Your task to perform on an android device: Go to battery settings Image 0: 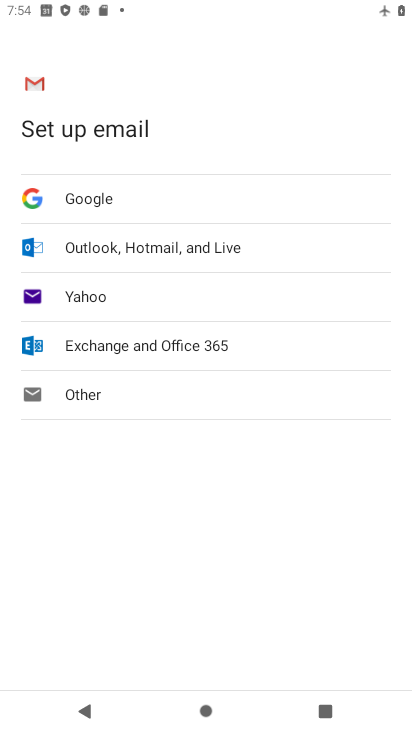
Step 0: press home button
Your task to perform on an android device: Go to battery settings Image 1: 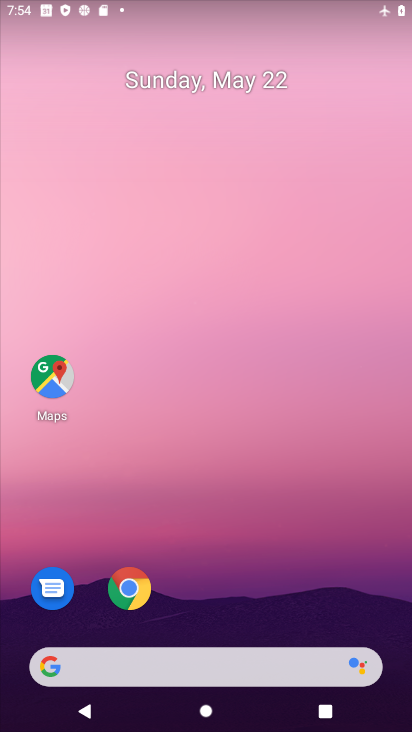
Step 1: drag from (255, 535) to (191, 98)
Your task to perform on an android device: Go to battery settings Image 2: 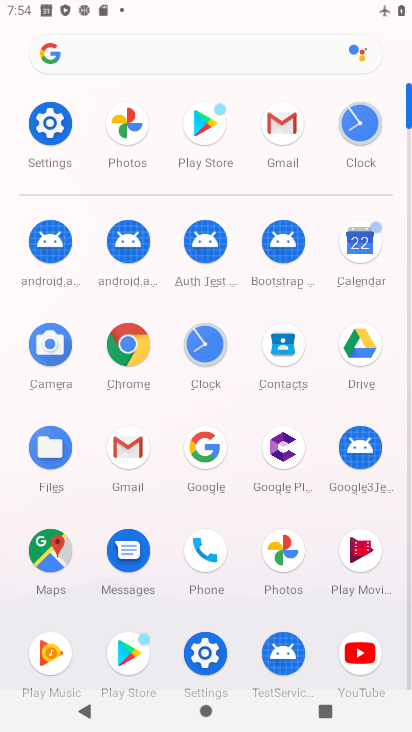
Step 2: click (44, 117)
Your task to perform on an android device: Go to battery settings Image 3: 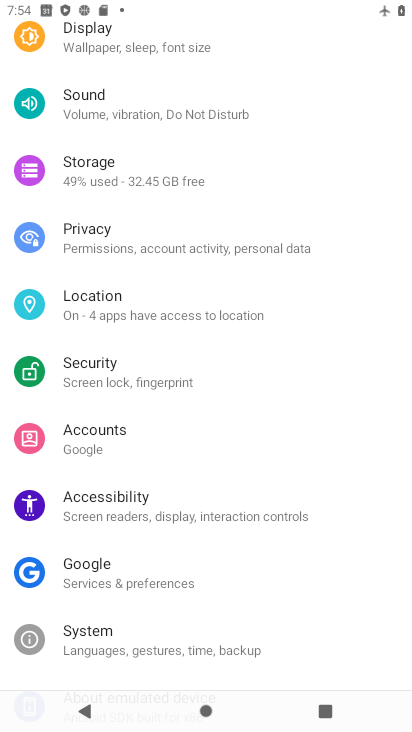
Step 3: drag from (223, 171) to (236, 727)
Your task to perform on an android device: Go to battery settings Image 4: 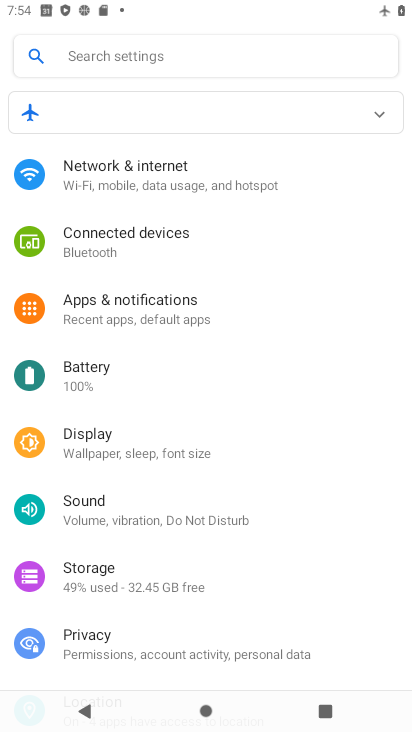
Step 4: click (81, 363)
Your task to perform on an android device: Go to battery settings Image 5: 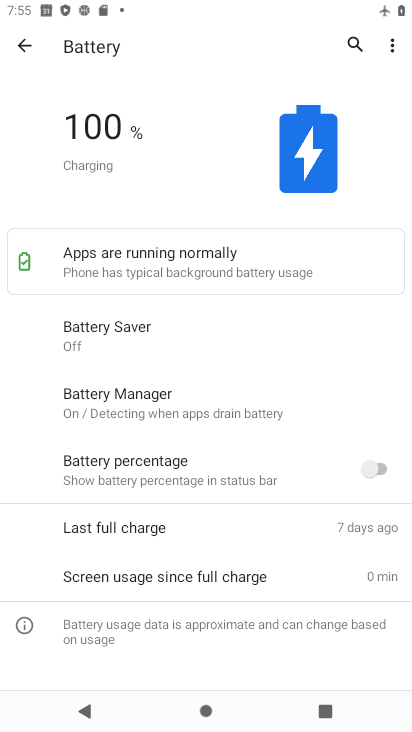
Step 5: task complete